Your task to perform on an android device: toggle improve location accuracy Image 0: 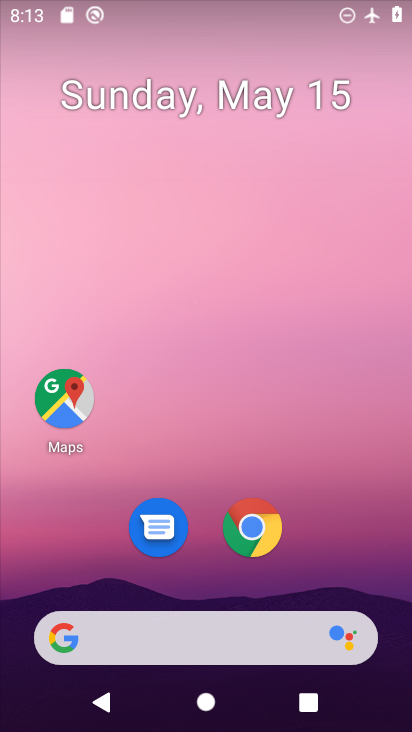
Step 0: drag from (217, 577) to (259, 97)
Your task to perform on an android device: toggle improve location accuracy Image 1: 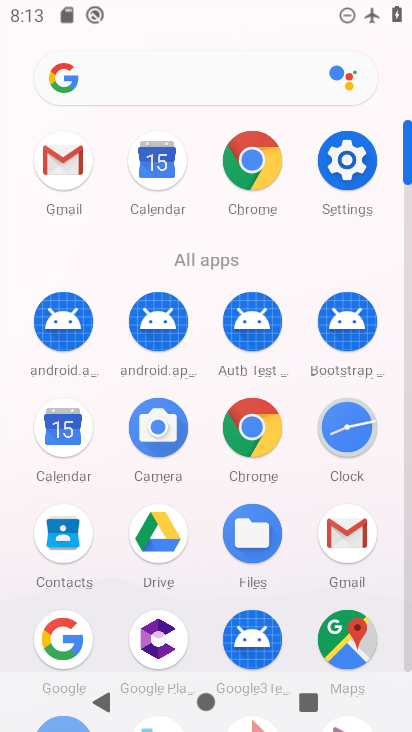
Step 1: click (324, 145)
Your task to perform on an android device: toggle improve location accuracy Image 2: 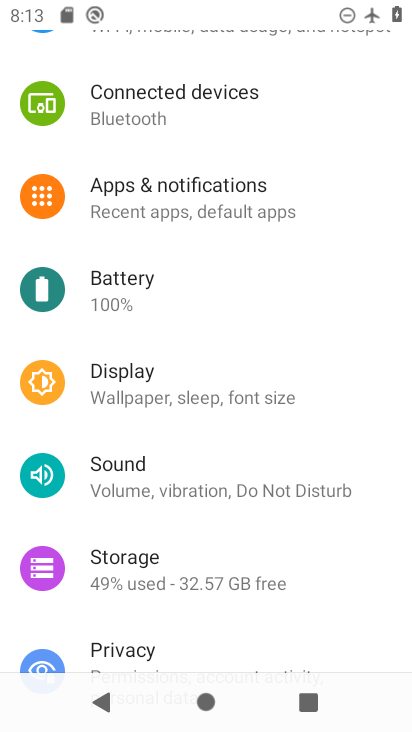
Step 2: drag from (229, 605) to (231, 350)
Your task to perform on an android device: toggle improve location accuracy Image 3: 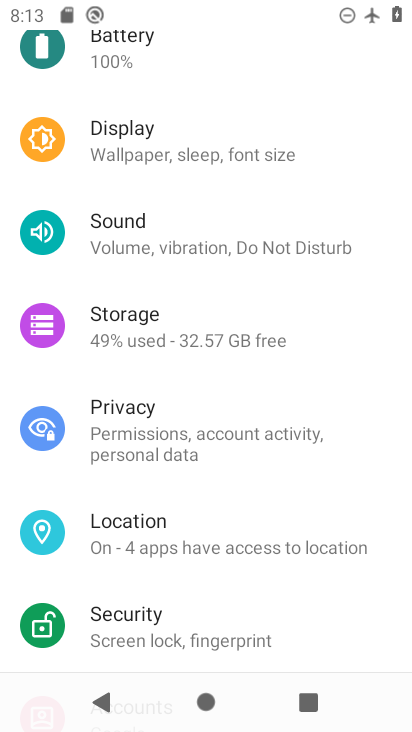
Step 3: click (157, 527)
Your task to perform on an android device: toggle improve location accuracy Image 4: 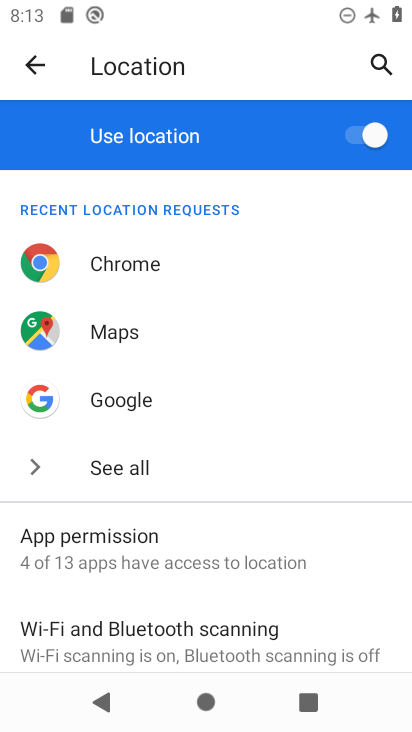
Step 4: drag from (223, 637) to (227, 512)
Your task to perform on an android device: toggle improve location accuracy Image 5: 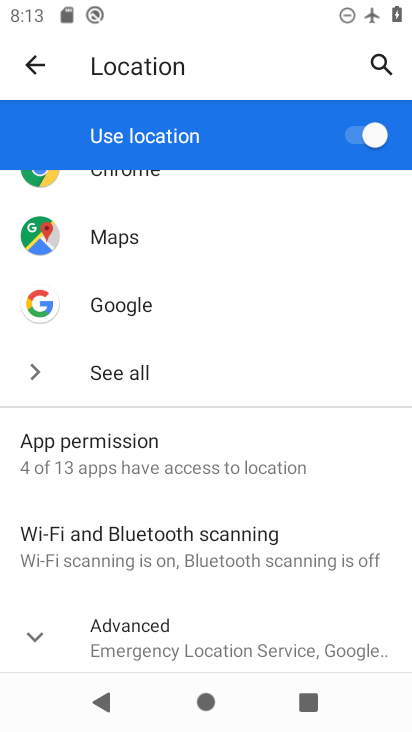
Step 5: drag from (199, 539) to (228, 330)
Your task to perform on an android device: toggle improve location accuracy Image 6: 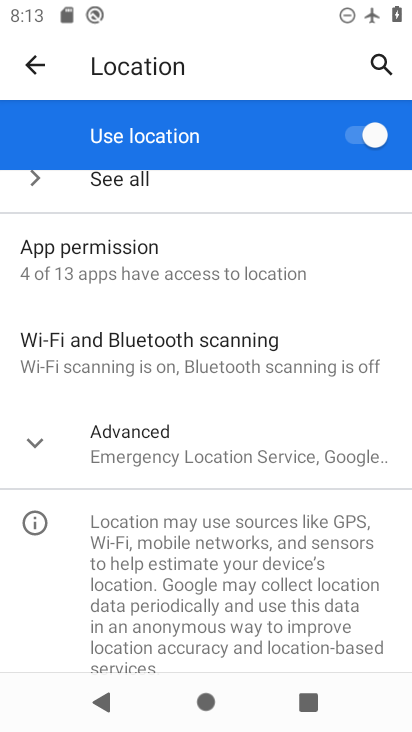
Step 6: click (233, 445)
Your task to perform on an android device: toggle improve location accuracy Image 7: 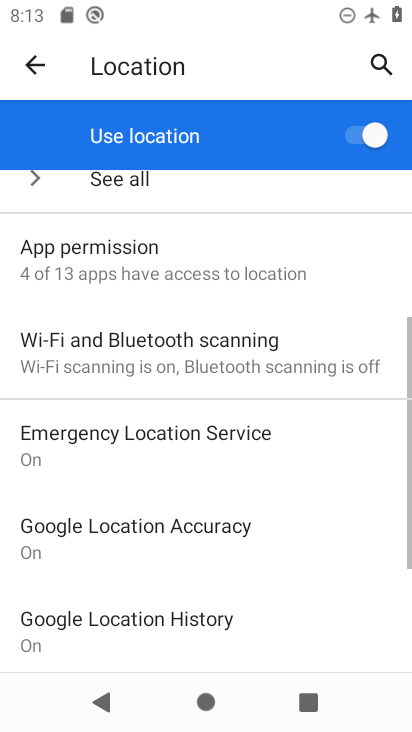
Step 7: drag from (234, 570) to (254, 482)
Your task to perform on an android device: toggle improve location accuracy Image 8: 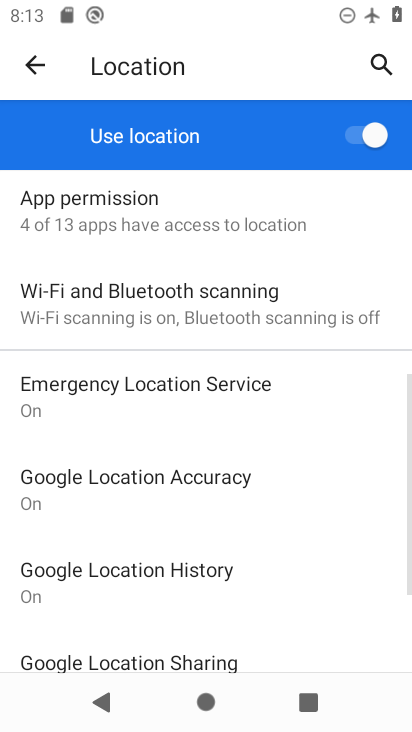
Step 8: click (243, 481)
Your task to perform on an android device: toggle improve location accuracy Image 9: 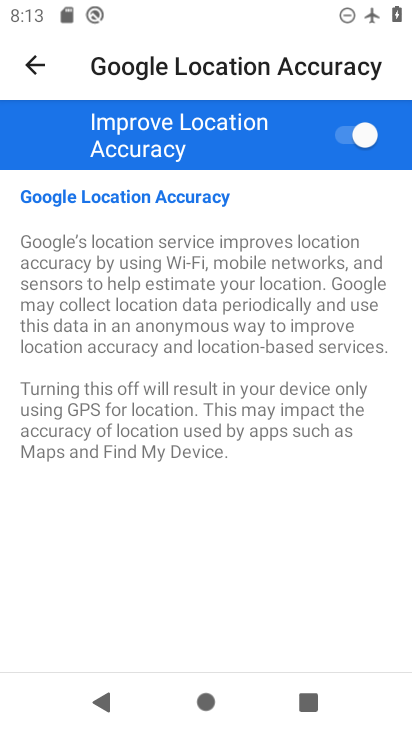
Step 9: click (351, 134)
Your task to perform on an android device: toggle improve location accuracy Image 10: 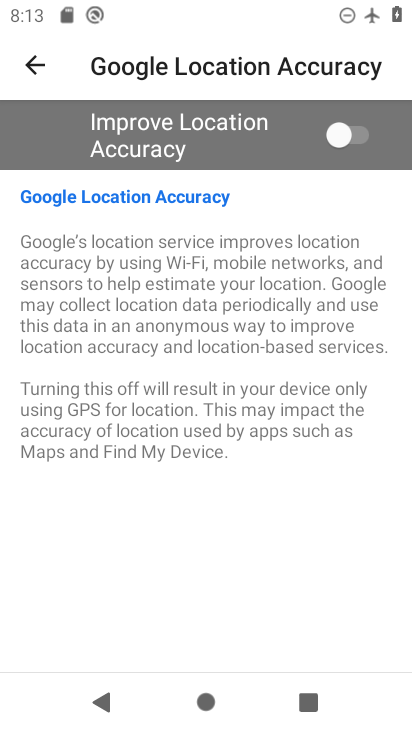
Step 10: task complete